Your task to perform on an android device: toggle priority inbox in the gmail app Image 0: 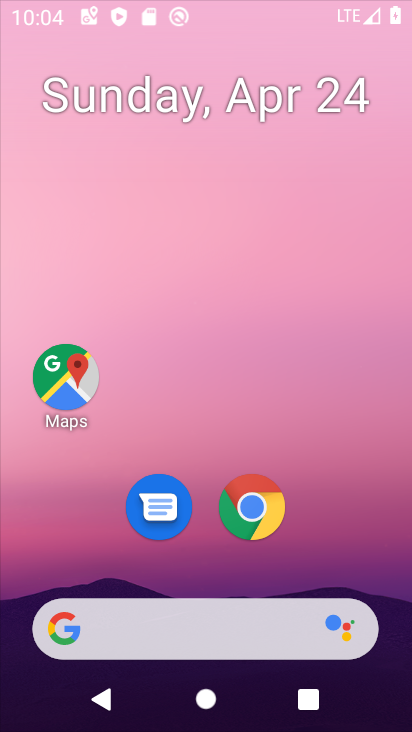
Step 0: click (195, 166)
Your task to perform on an android device: toggle priority inbox in the gmail app Image 1: 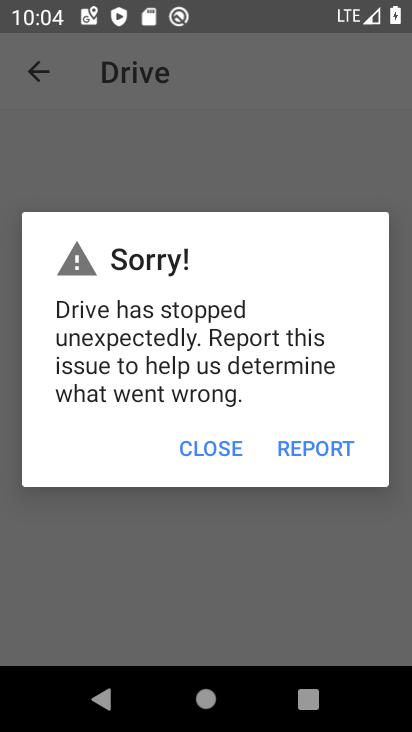
Step 1: press home button
Your task to perform on an android device: toggle priority inbox in the gmail app Image 2: 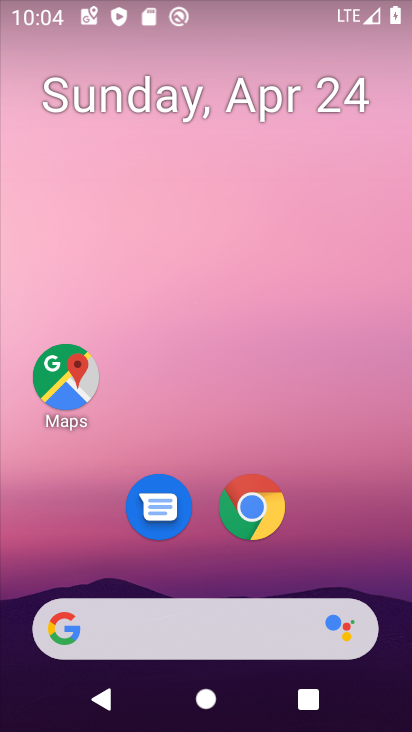
Step 2: drag from (164, 569) to (160, 78)
Your task to perform on an android device: toggle priority inbox in the gmail app Image 3: 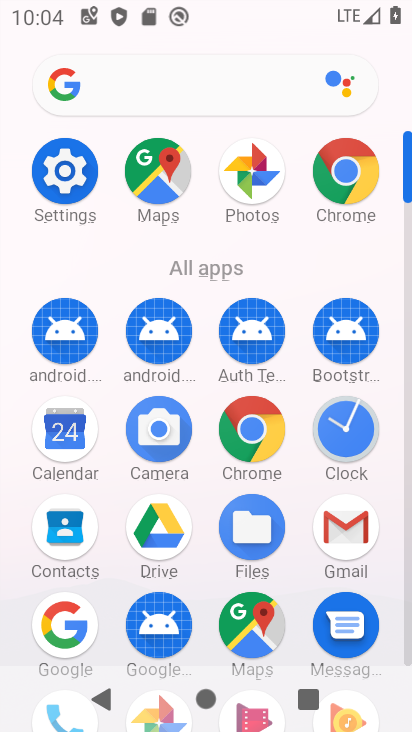
Step 3: click (343, 520)
Your task to perform on an android device: toggle priority inbox in the gmail app Image 4: 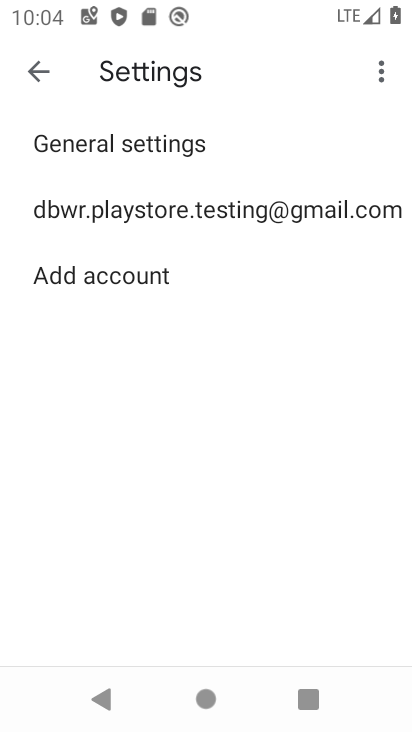
Step 4: click (189, 211)
Your task to perform on an android device: toggle priority inbox in the gmail app Image 5: 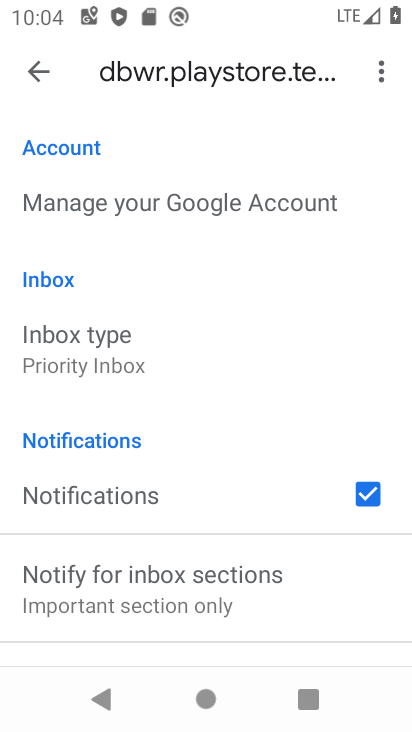
Step 5: click (123, 357)
Your task to perform on an android device: toggle priority inbox in the gmail app Image 6: 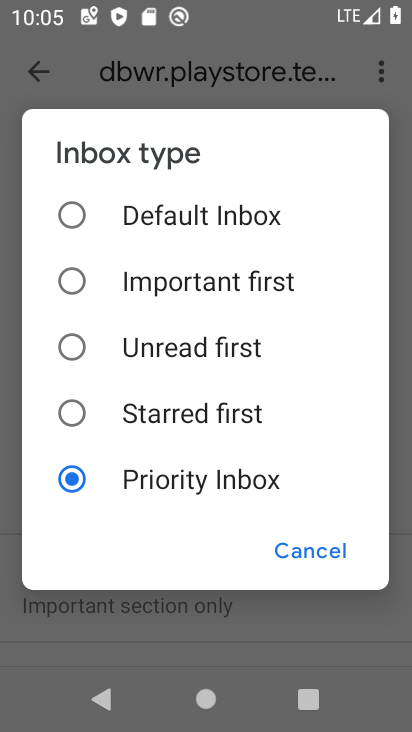
Step 6: click (71, 231)
Your task to perform on an android device: toggle priority inbox in the gmail app Image 7: 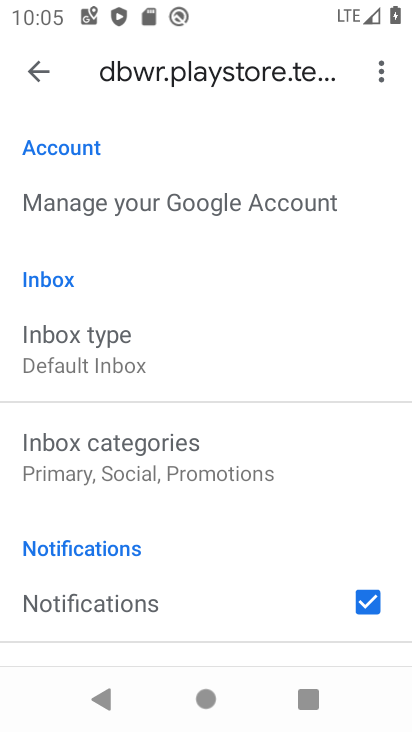
Step 7: task complete